Your task to perform on an android device: see sites visited before in the chrome app Image 0: 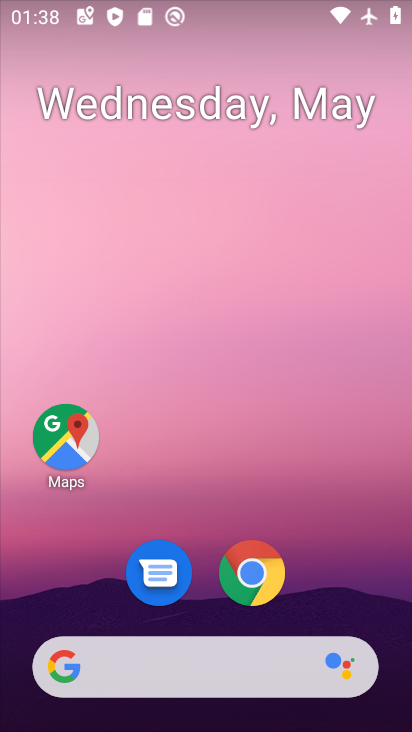
Step 0: drag from (338, 576) to (332, 238)
Your task to perform on an android device: see sites visited before in the chrome app Image 1: 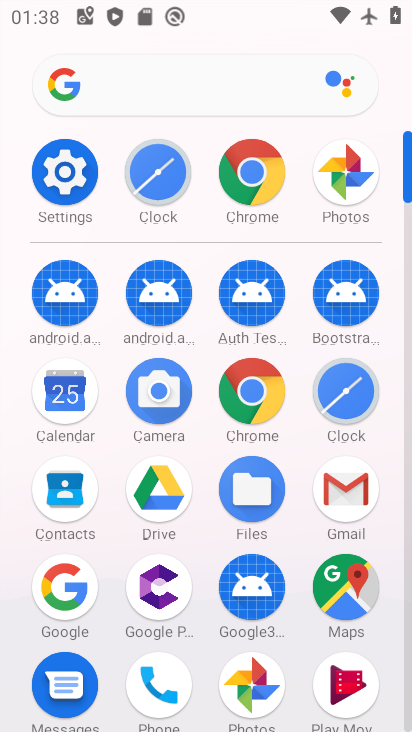
Step 1: click (254, 379)
Your task to perform on an android device: see sites visited before in the chrome app Image 2: 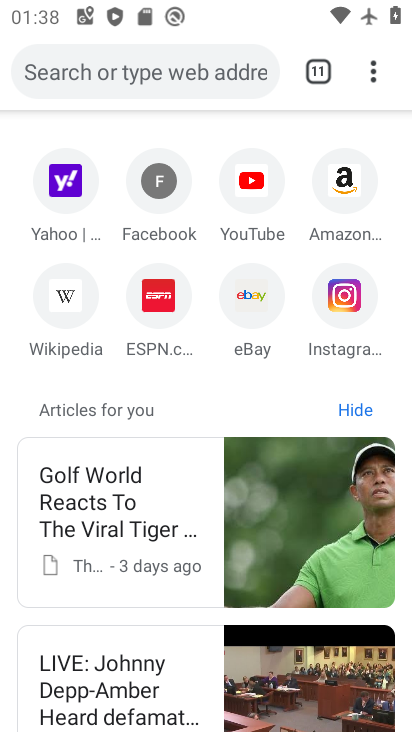
Step 2: click (367, 73)
Your task to perform on an android device: see sites visited before in the chrome app Image 3: 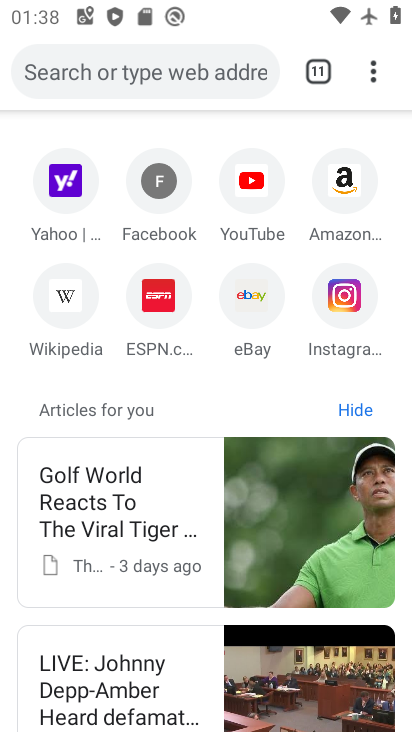
Step 3: click (378, 60)
Your task to perform on an android device: see sites visited before in the chrome app Image 4: 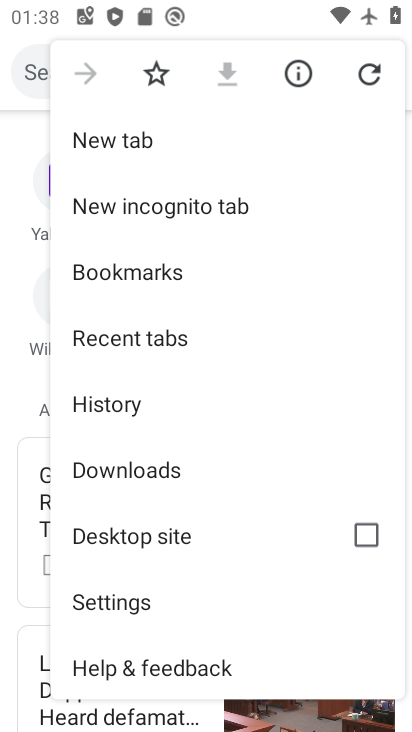
Step 4: click (137, 408)
Your task to perform on an android device: see sites visited before in the chrome app Image 5: 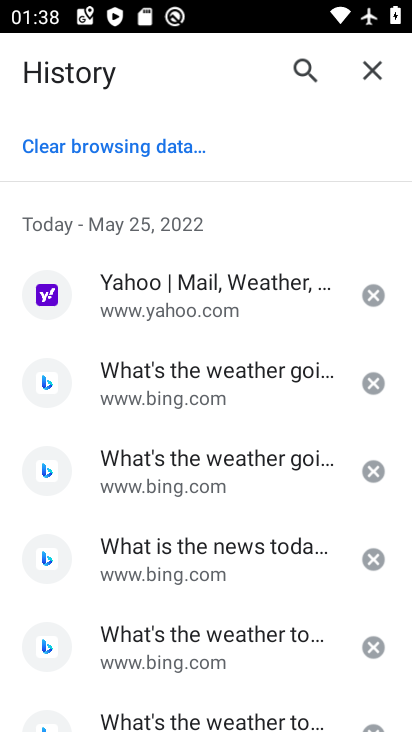
Step 5: task complete